Your task to perform on an android device: Open Google Maps and go to "Timeline" Image 0: 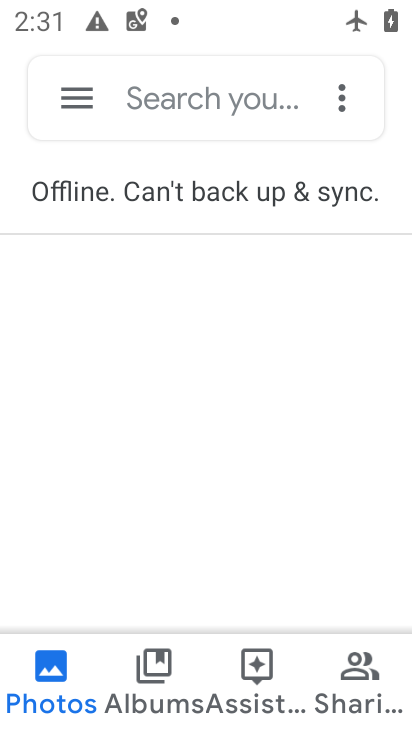
Step 0: press home button
Your task to perform on an android device: Open Google Maps and go to "Timeline" Image 1: 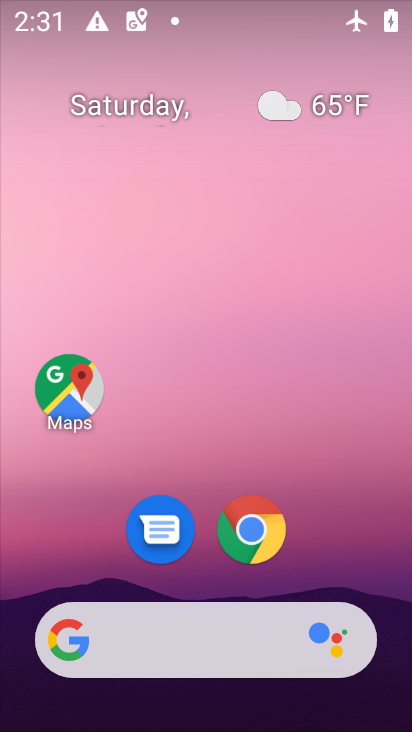
Step 1: click (68, 388)
Your task to perform on an android device: Open Google Maps and go to "Timeline" Image 2: 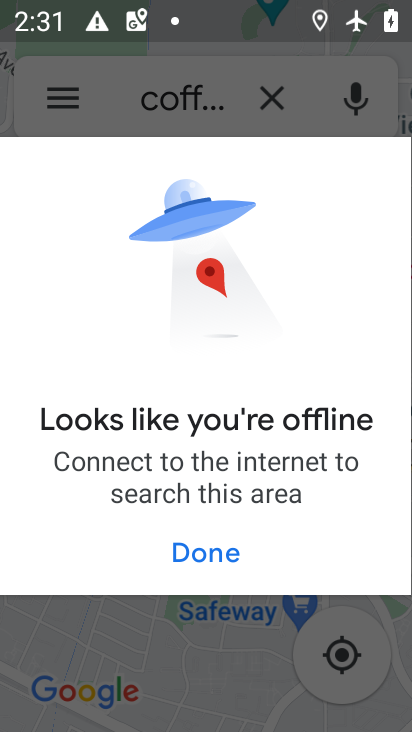
Step 2: click (212, 554)
Your task to perform on an android device: Open Google Maps and go to "Timeline" Image 3: 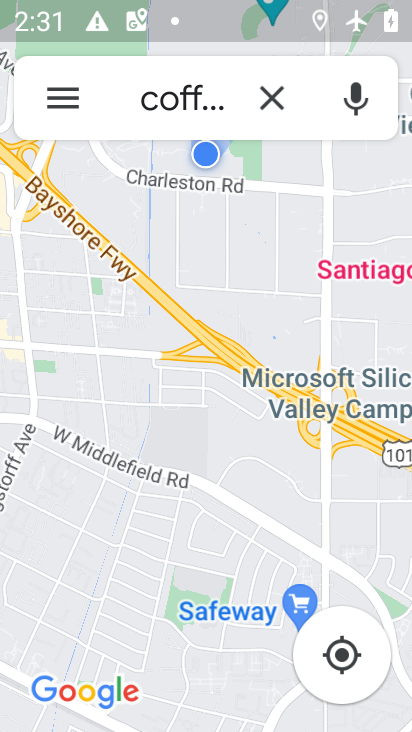
Step 3: click (72, 85)
Your task to perform on an android device: Open Google Maps and go to "Timeline" Image 4: 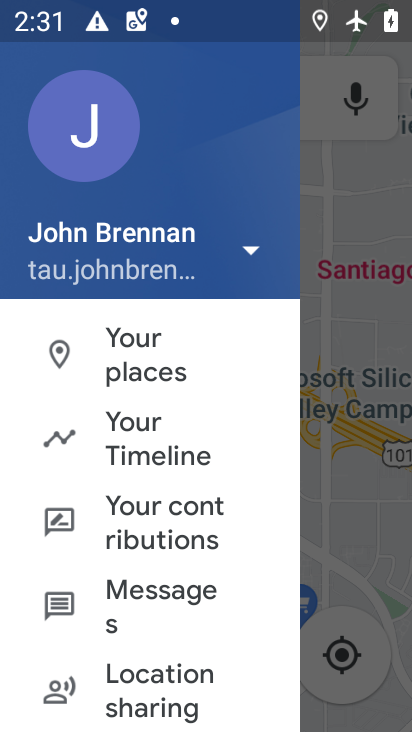
Step 4: click (152, 451)
Your task to perform on an android device: Open Google Maps and go to "Timeline" Image 5: 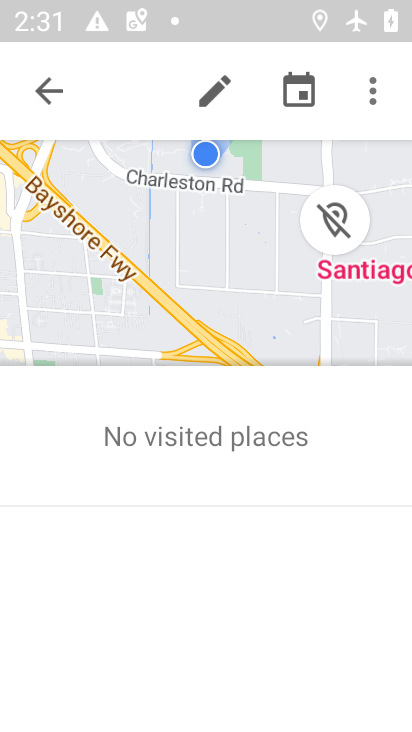
Step 5: task complete